Your task to perform on an android device: turn on airplane mode Image 0: 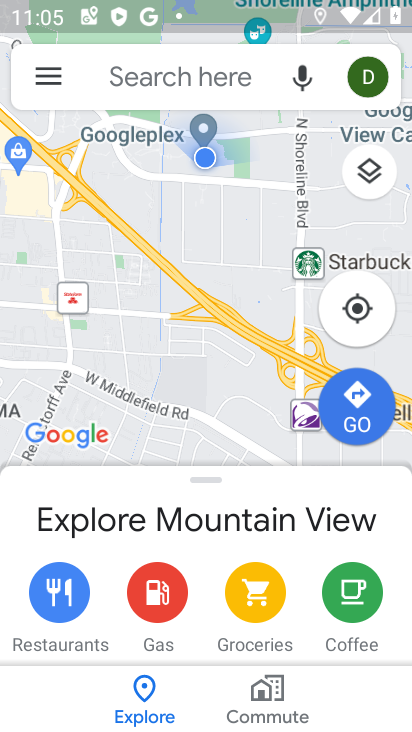
Step 0: drag from (372, 9) to (288, 567)
Your task to perform on an android device: turn on airplane mode Image 1: 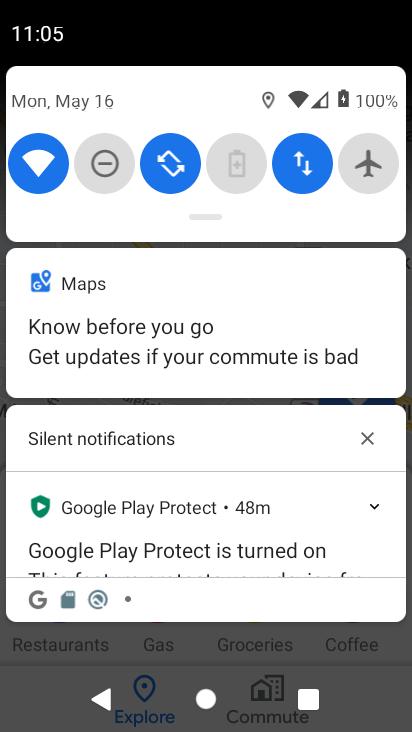
Step 1: click (356, 165)
Your task to perform on an android device: turn on airplane mode Image 2: 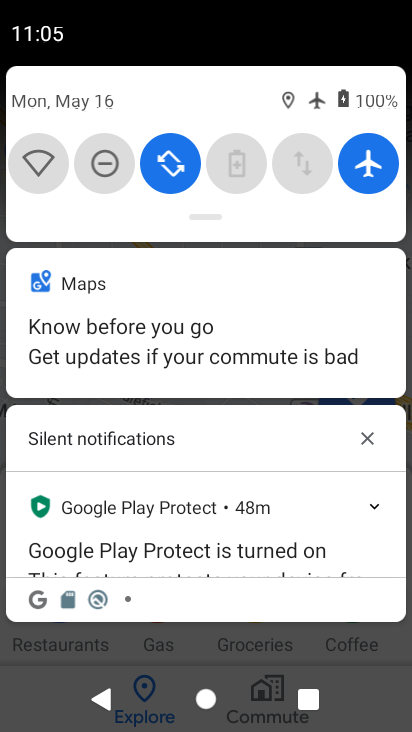
Step 2: task complete